Your task to perform on an android device: stop showing notifications on the lock screen Image 0: 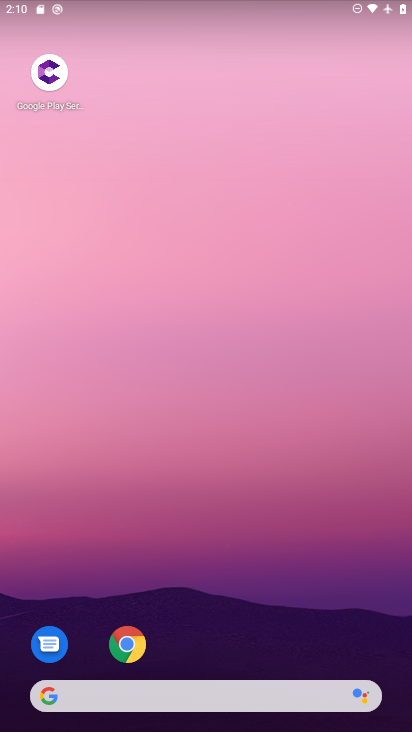
Step 0: drag from (311, 620) to (236, 62)
Your task to perform on an android device: stop showing notifications on the lock screen Image 1: 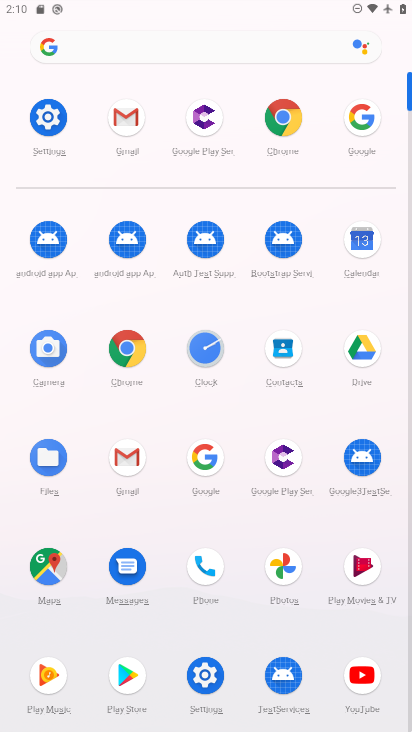
Step 1: click (220, 677)
Your task to perform on an android device: stop showing notifications on the lock screen Image 2: 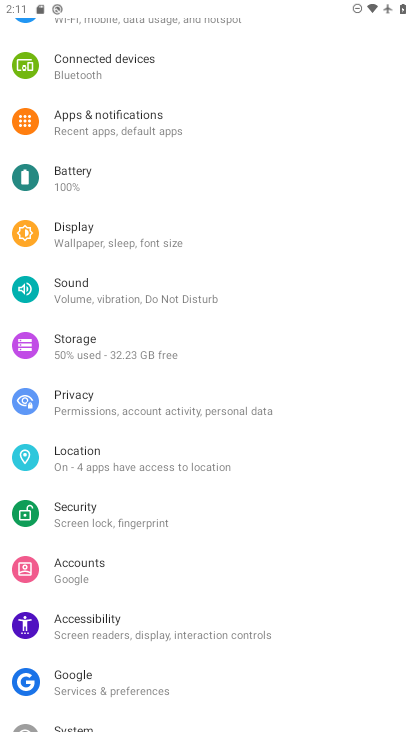
Step 2: click (120, 456)
Your task to perform on an android device: stop showing notifications on the lock screen Image 3: 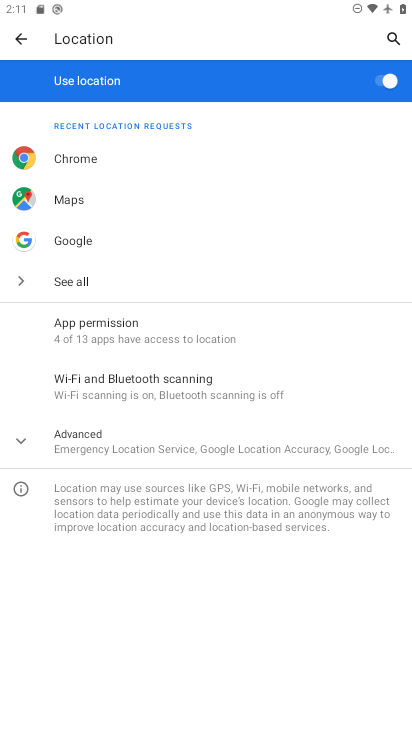
Step 3: click (120, 456)
Your task to perform on an android device: stop showing notifications on the lock screen Image 4: 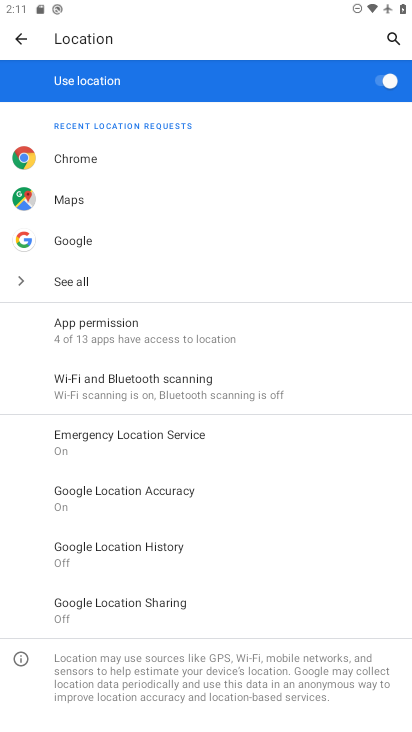
Step 4: task complete